Your task to perform on an android device: turn off location Image 0: 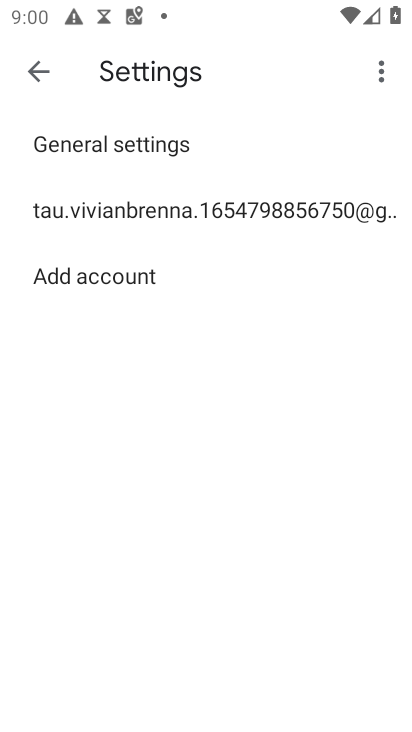
Step 0: press home button
Your task to perform on an android device: turn off location Image 1: 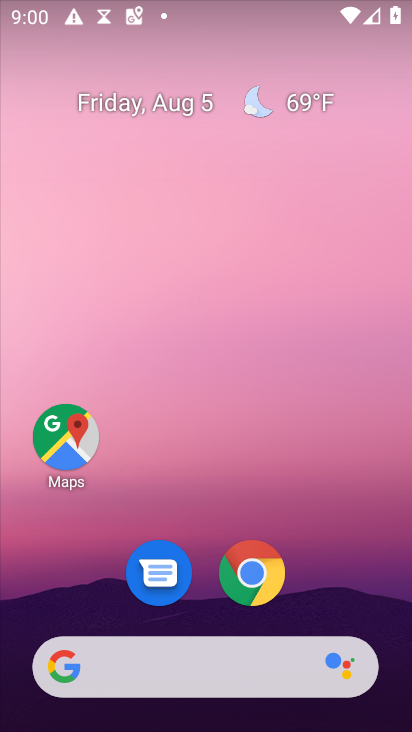
Step 1: drag from (222, 681) to (269, 121)
Your task to perform on an android device: turn off location Image 2: 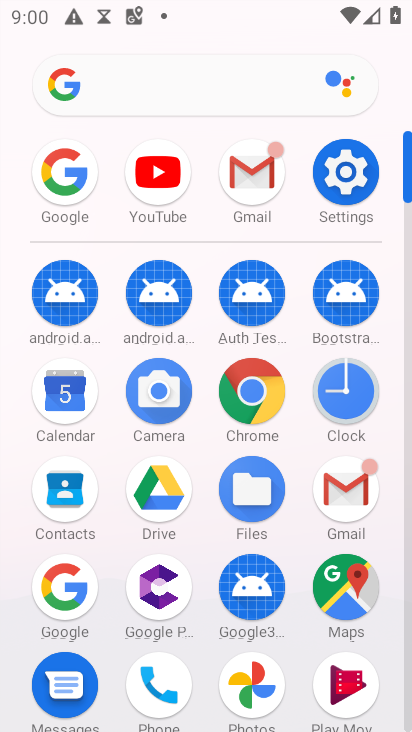
Step 2: click (345, 174)
Your task to perform on an android device: turn off location Image 3: 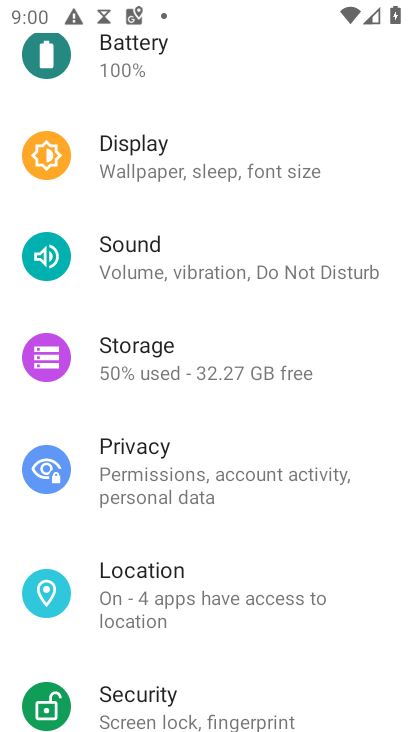
Step 3: click (196, 591)
Your task to perform on an android device: turn off location Image 4: 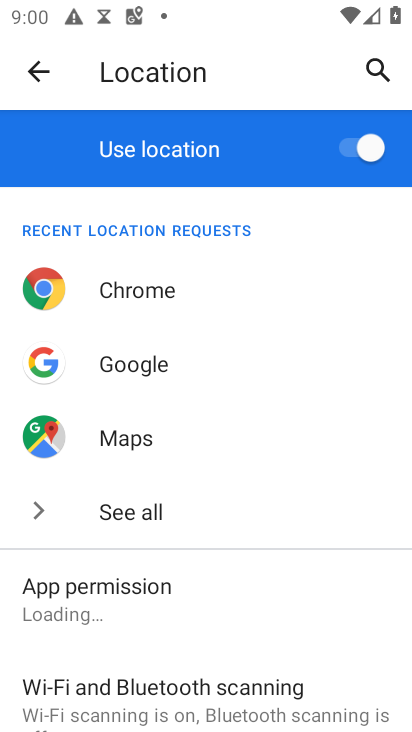
Step 4: click (352, 157)
Your task to perform on an android device: turn off location Image 5: 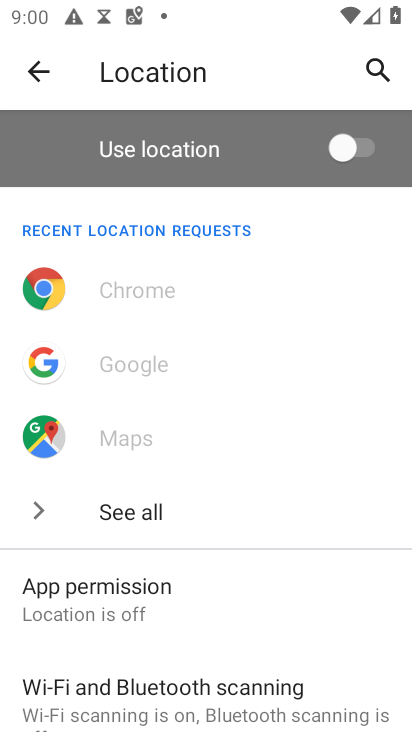
Step 5: task complete